Your task to perform on an android device: toggle data saver in the chrome app Image 0: 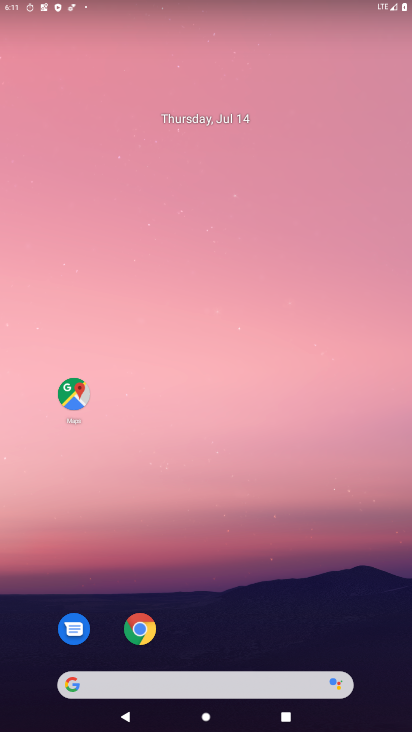
Step 0: drag from (212, 697) to (204, 317)
Your task to perform on an android device: toggle data saver in the chrome app Image 1: 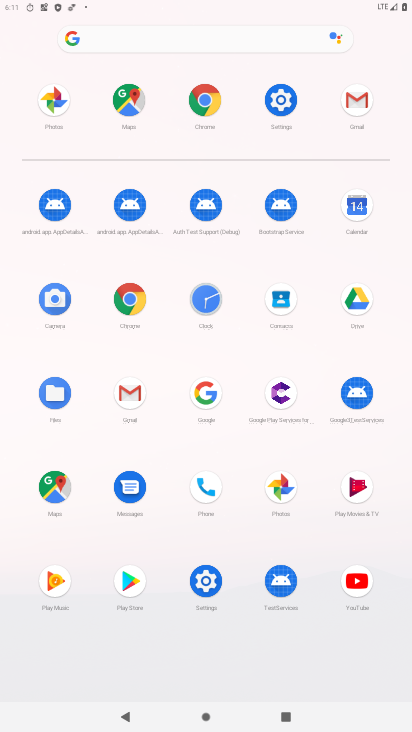
Step 1: click (135, 300)
Your task to perform on an android device: toggle data saver in the chrome app Image 2: 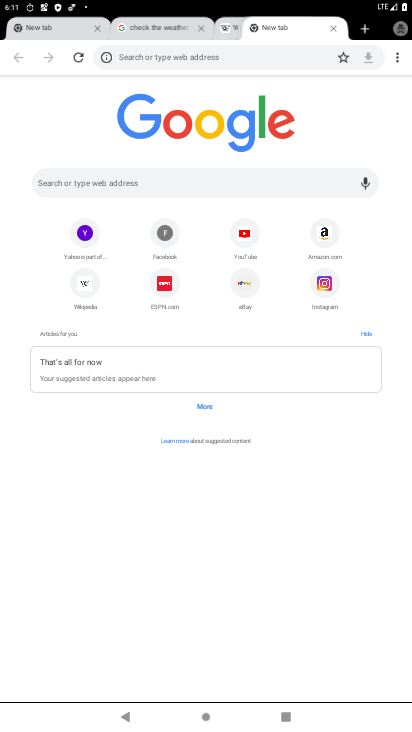
Step 2: click (397, 50)
Your task to perform on an android device: toggle data saver in the chrome app Image 3: 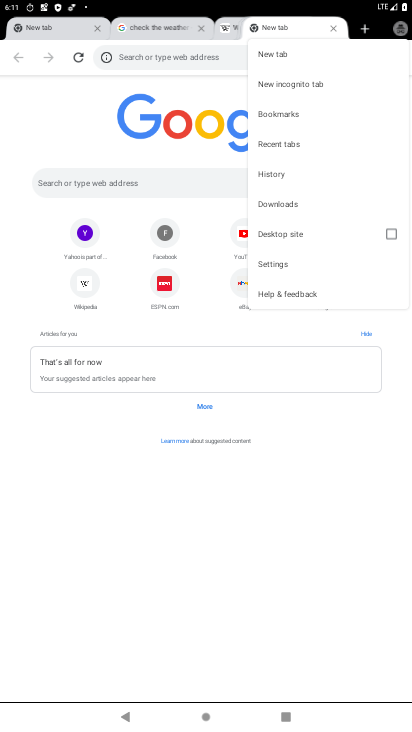
Step 3: click (295, 261)
Your task to perform on an android device: toggle data saver in the chrome app Image 4: 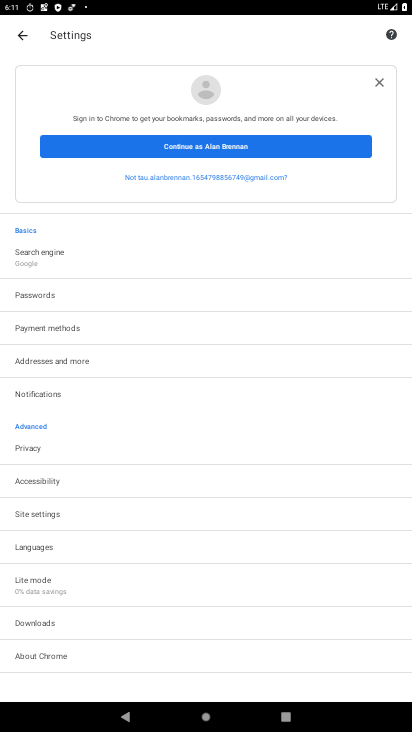
Step 4: click (39, 575)
Your task to perform on an android device: toggle data saver in the chrome app Image 5: 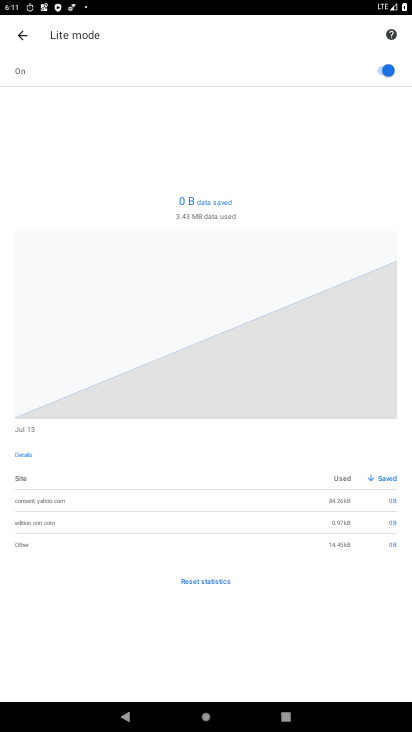
Step 5: click (386, 63)
Your task to perform on an android device: toggle data saver in the chrome app Image 6: 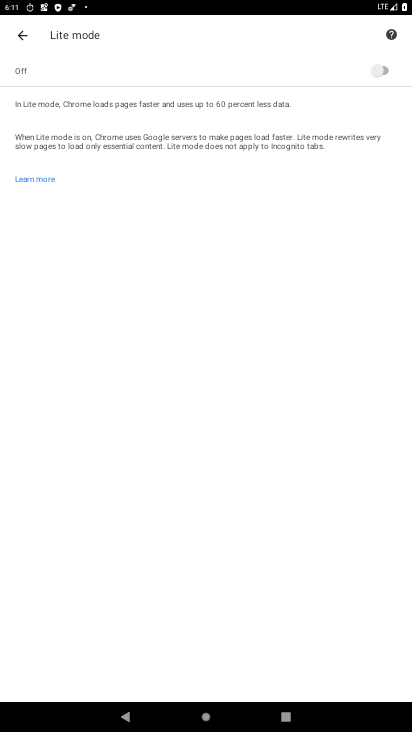
Step 6: task complete